Your task to perform on an android device: turn pop-ups on in chrome Image 0: 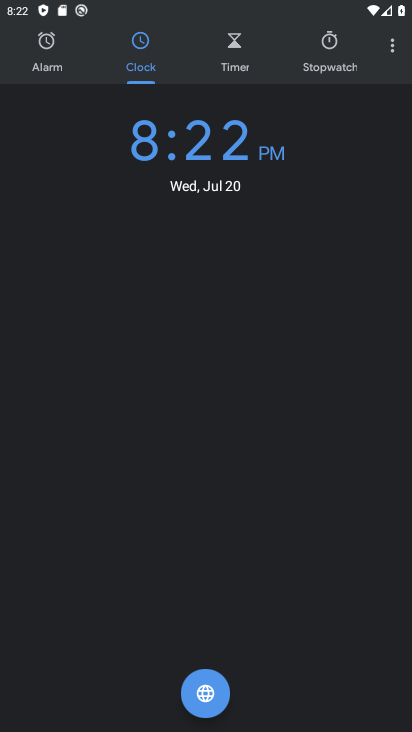
Step 0: press home button
Your task to perform on an android device: turn pop-ups on in chrome Image 1: 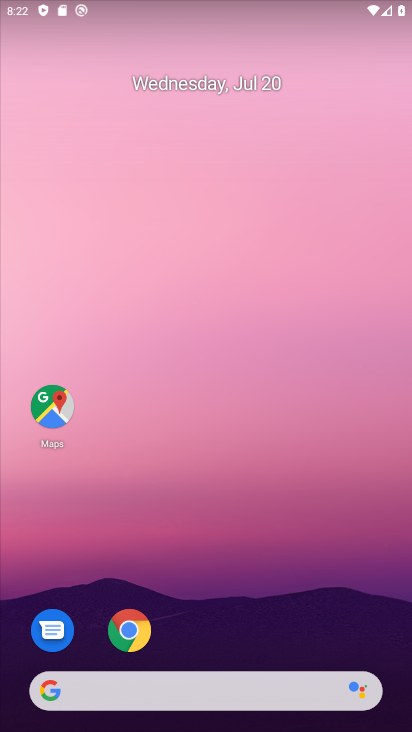
Step 1: click (130, 640)
Your task to perform on an android device: turn pop-ups on in chrome Image 2: 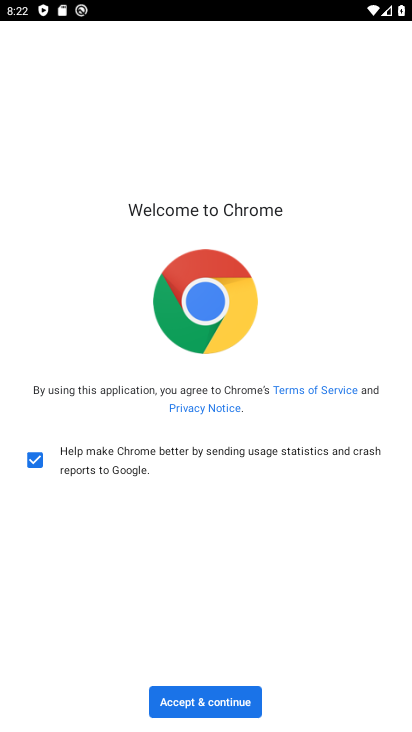
Step 2: click (202, 704)
Your task to perform on an android device: turn pop-ups on in chrome Image 3: 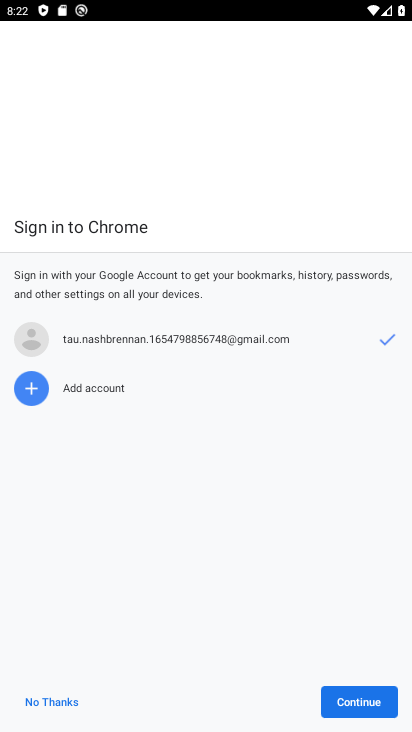
Step 3: click (330, 698)
Your task to perform on an android device: turn pop-ups on in chrome Image 4: 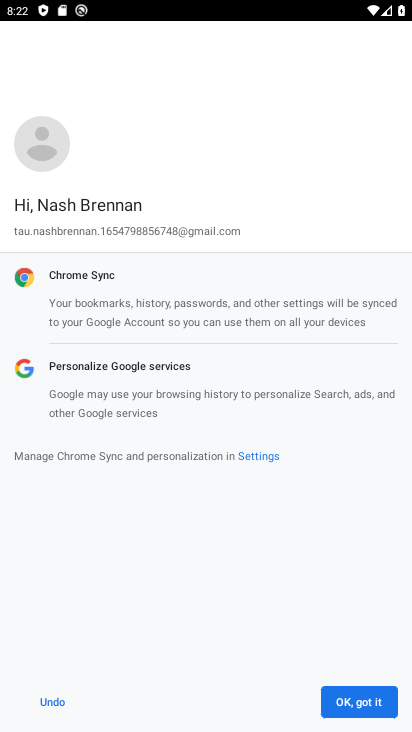
Step 4: click (330, 698)
Your task to perform on an android device: turn pop-ups on in chrome Image 5: 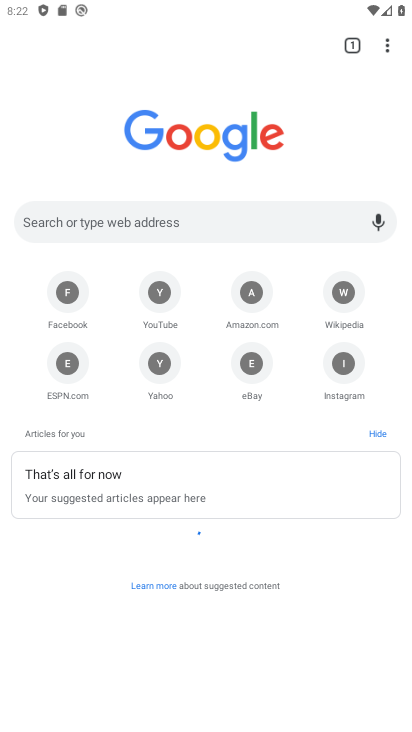
Step 5: click (387, 46)
Your task to perform on an android device: turn pop-ups on in chrome Image 6: 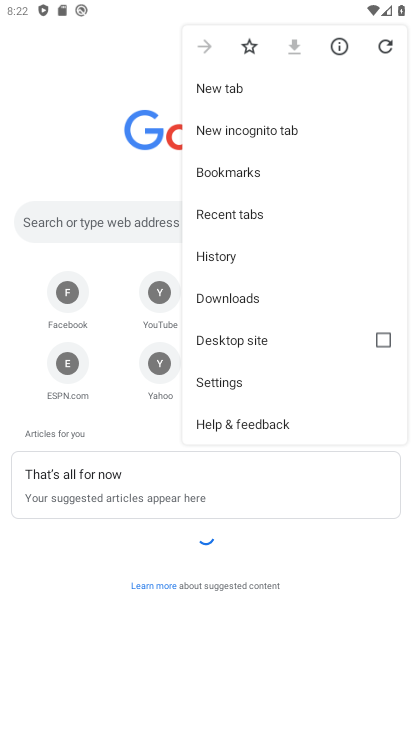
Step 6: click (259, 385)
Your task to perform on an android device: turn pop-ups on in chrome Image 7: 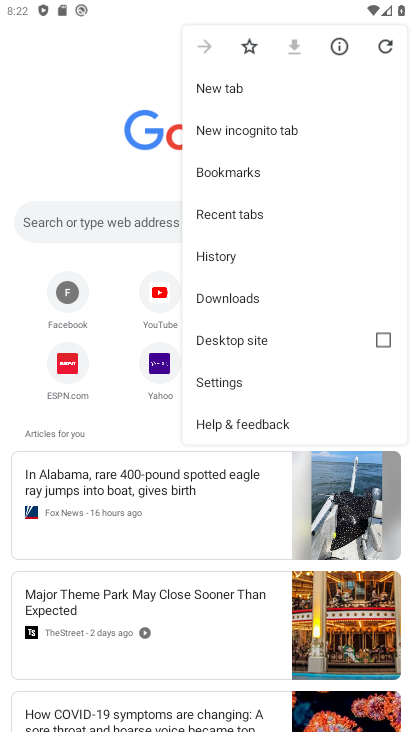
Step 7: click (232, 389)
Your task to perform on an android device: turn pop-ups on in chrome Image 8: 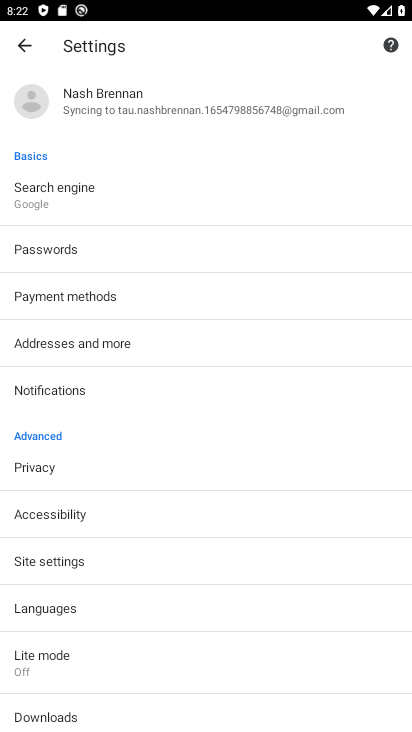
Step 8: click (169, 558)
Your task to perform on an android device: turn pop-ups on in chrome Image 9: 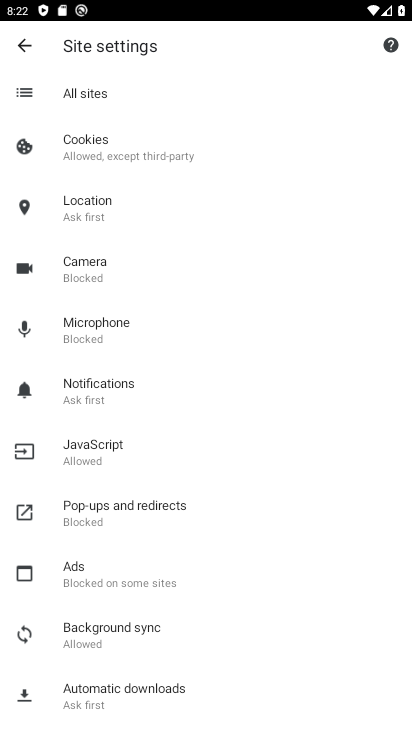
Step 9: click (120, 519)
Your task to perform on an android device: turn pop-ups on in chrome Image 10: 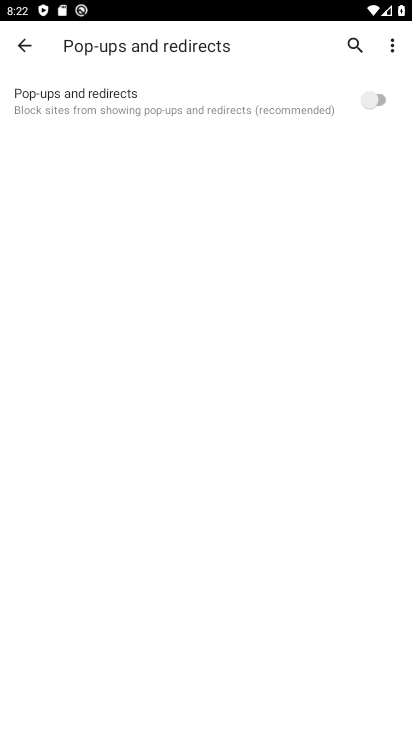
Step 10: click (383, 111)
Your task to perform on an android device: turn pop-ups on in chrome Image 11: 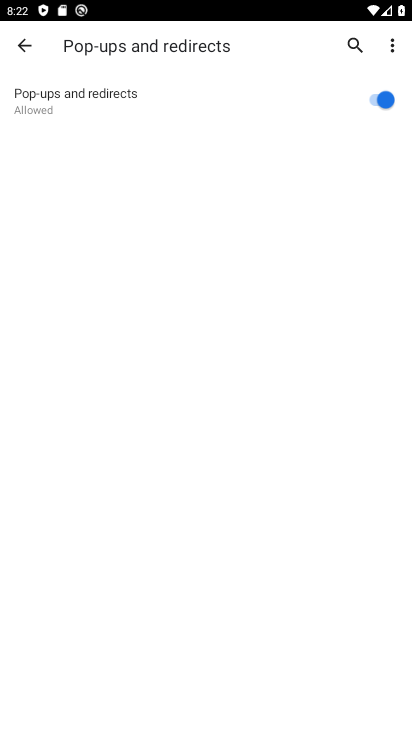
Step 11: task complete